Your task to perform on an android device: Go to accessibility settings Image 0: 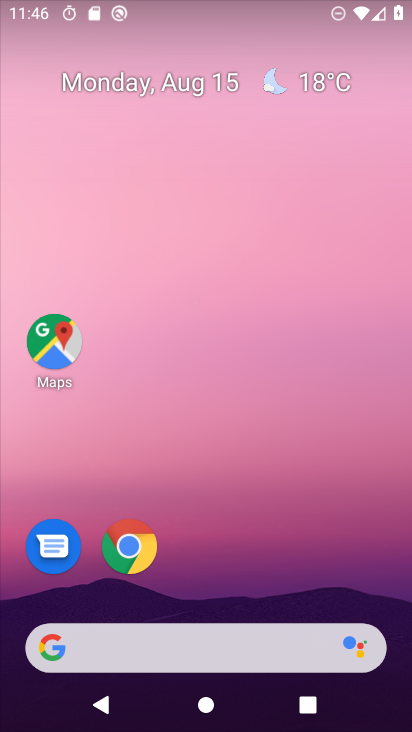
Step 0: drag from (214, 614) to (193, 89)
Your task to perform on an android device: Go to accessibility settings Image 1: 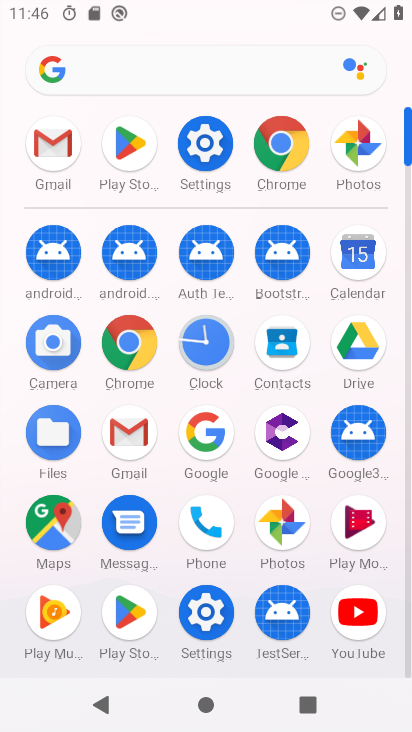
Step 1: click (206, 630)
Your task to perform on an android device: Go to accessibility settings Image 2: 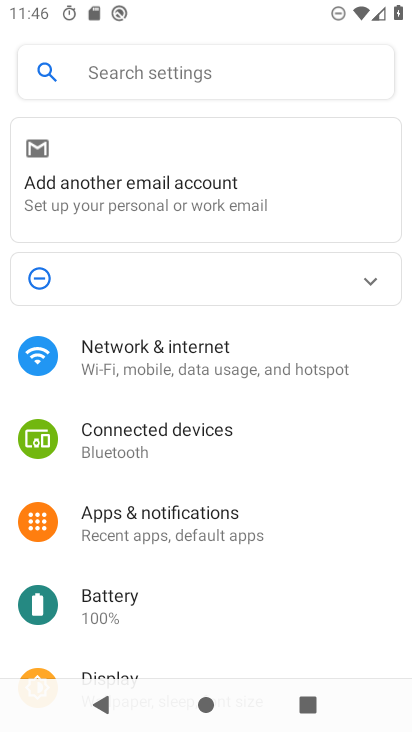
Step 2: drag from (108, 642) to (127, 284)
Your task to perform on an android device: Go to accessibility settings Image 3: 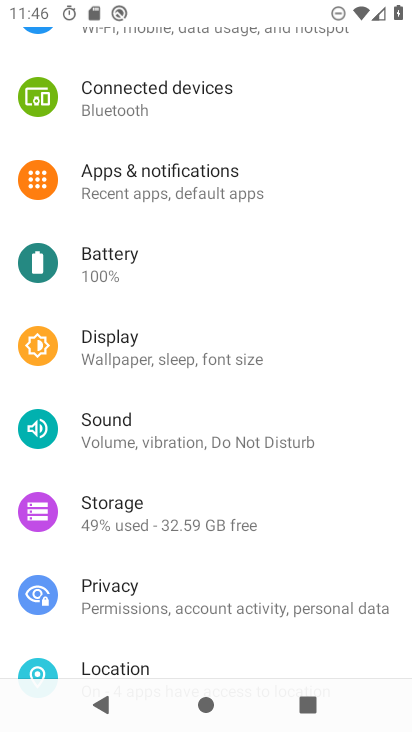
Step 3: drag from (141, 633) to (163, 297)
Your task to perform on an android device: Go to accessibility settings Image 4: 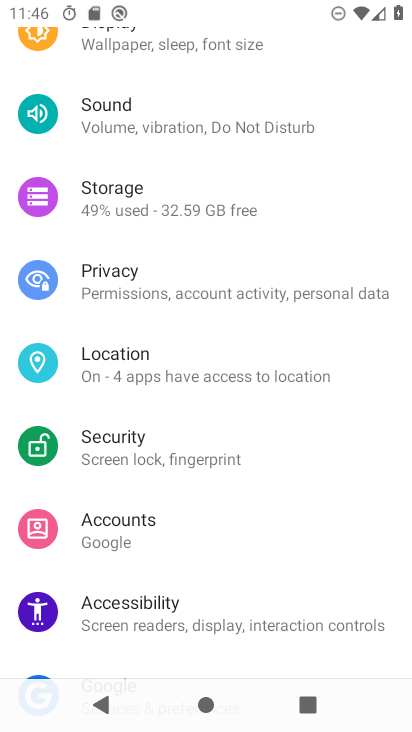
Step 4: click (142, 620)
Your task to perform on an android device: Go to accessibility settings Image 5: 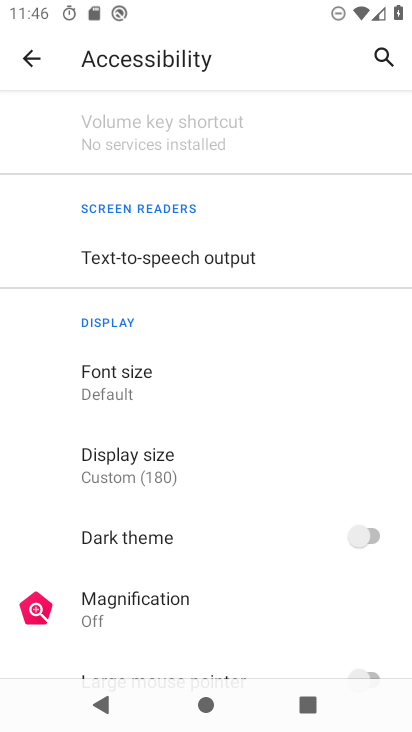
Step 5: task complete